Your task to perform on an android device: turn notification dots on Image 0: 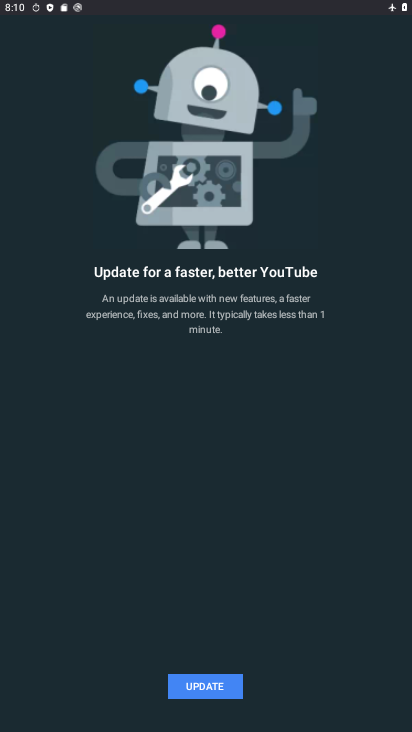
Step 0: press back button
Your task to perform on an android device: turn notification dots on Image 1: 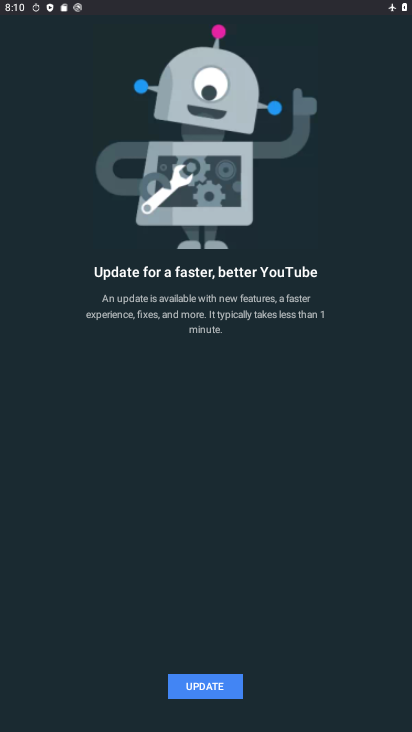
Step 1: press back button
Your task to perform on an android device: turn notification dots on Image 2: 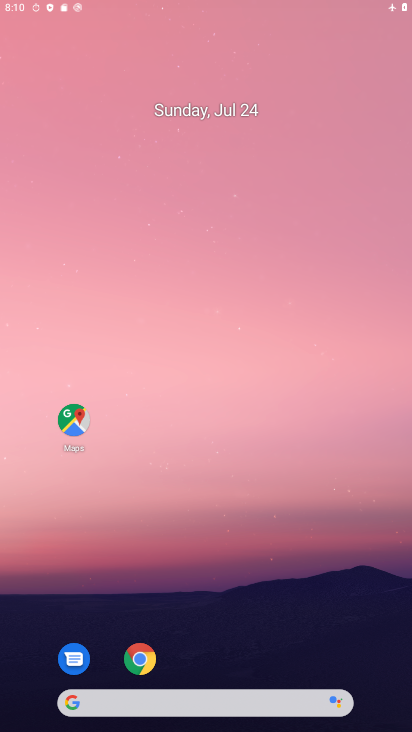
Step 2: press back button
Your task to perform on an android device: turn notification dots on Image 3: 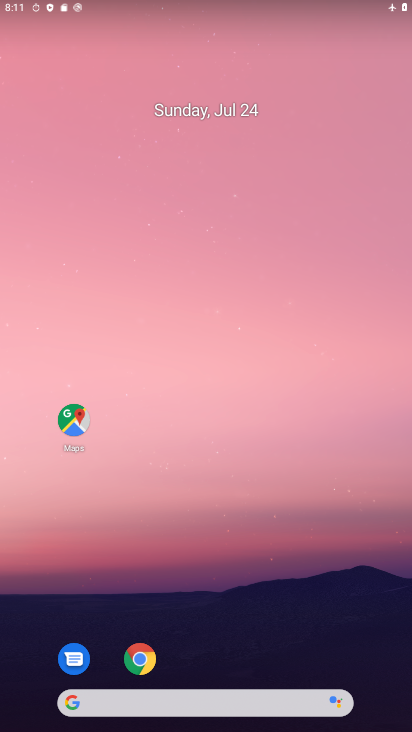
Step 3: drag from (248, 482) to (230, 186)
Your task to perform on an android device: turn notification dots on Image 4: 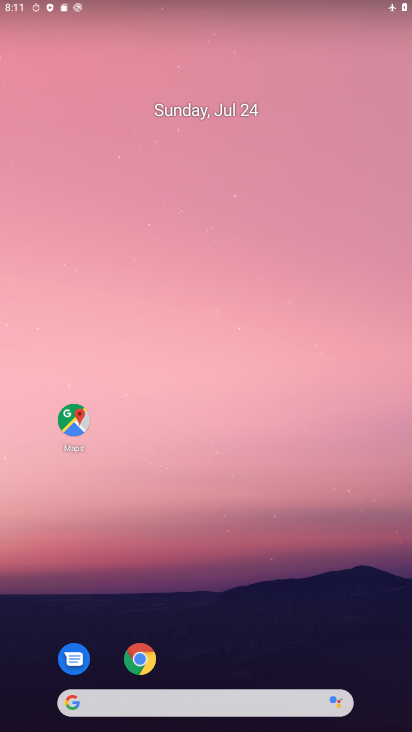
Step 4: drag from (246, 592) to (253, 96)
Your task to perform on an android device: turn notification dots on Image 5: 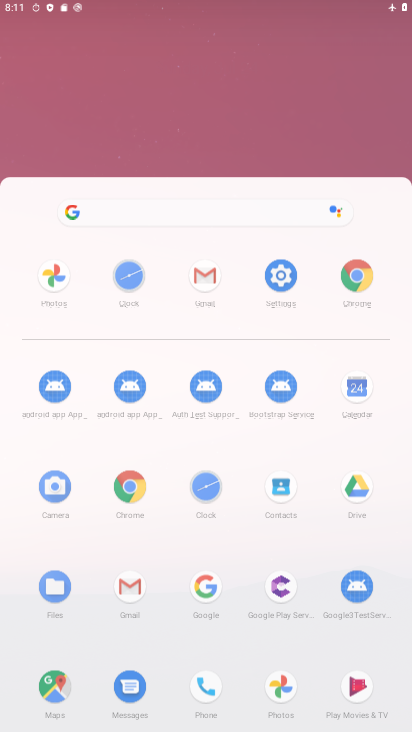
Step 5: drag from (156, 621) to (196, 138)
Your task to perform on an android device: turn notification dots on Image 6: 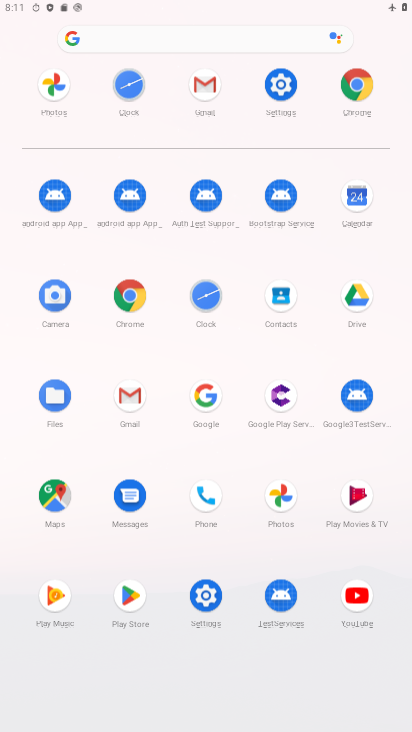
Step 6: drag from (282, 476) to (288, 120)
Your task to perform on an android device: turn notification dots on Image 7: 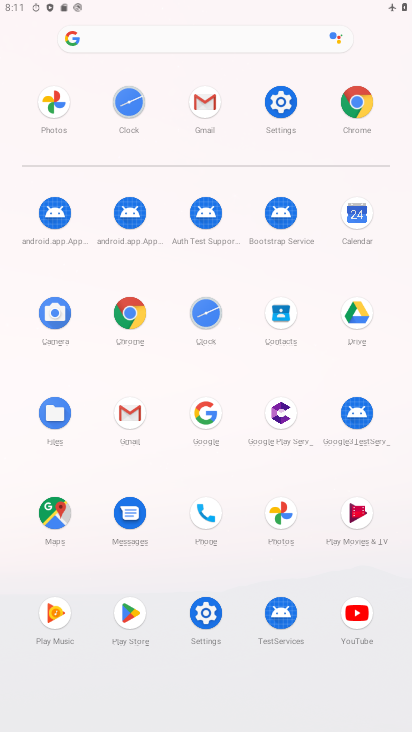
Step 7: click (274, 106)
Your task to perform on an android device: turn notification dots on Image 8: 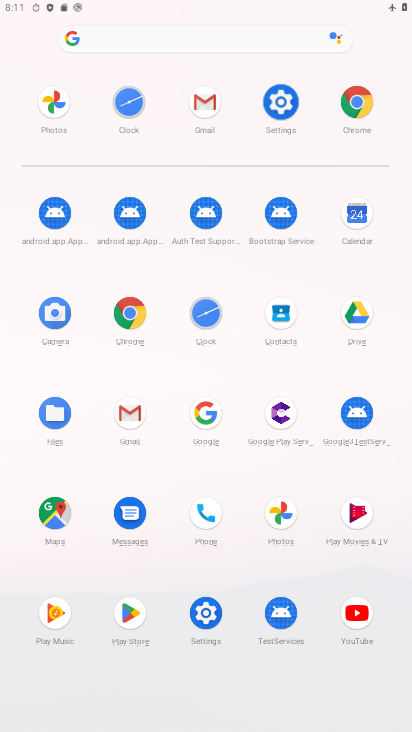
Step 8: click (274, 106)
Your task to perform on an android device: turn notification dots on Image 9: 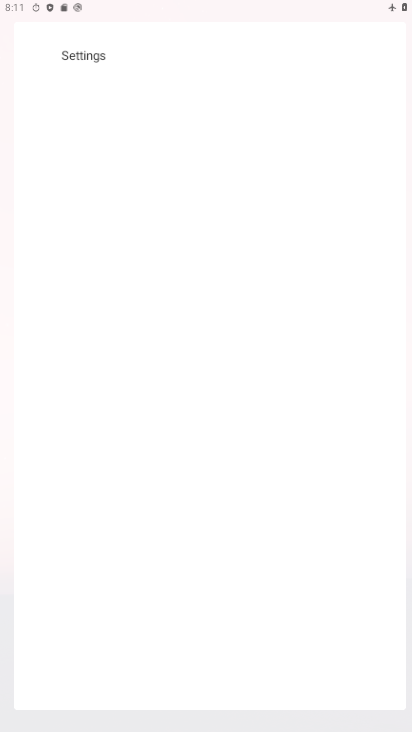
Step 9: click (274, 105)
Your task to perform on an android device: turn notification dots on Image 10: 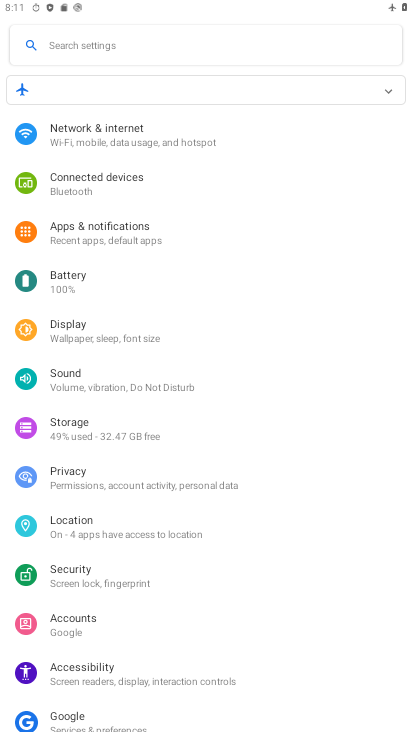
Step 10: click (274, 102)
Your task to perform on an android device: turn notification dots on Image 11: 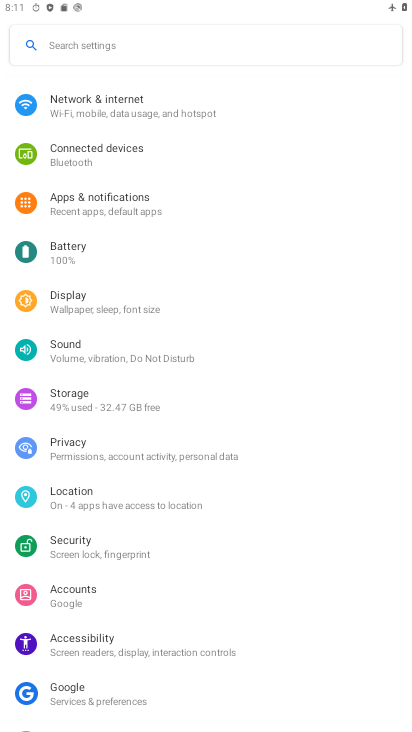
Step 11: click (274, 102)
Your task to perform on an android device: turn notification dots on Image 12: 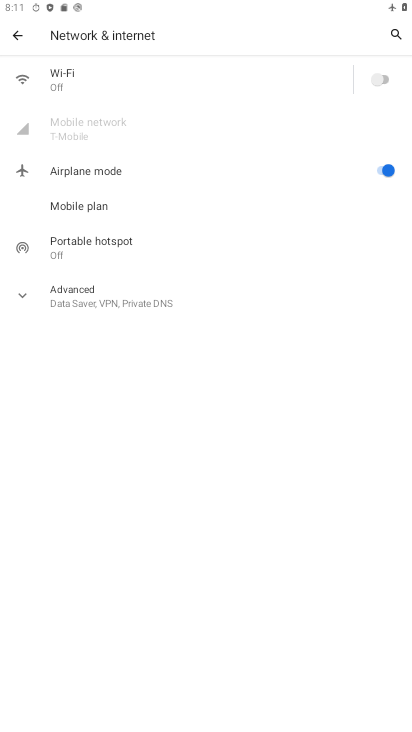
Step 12: click (21, 35)
Your task to perform on an android device: turn notification dots on Image 13: 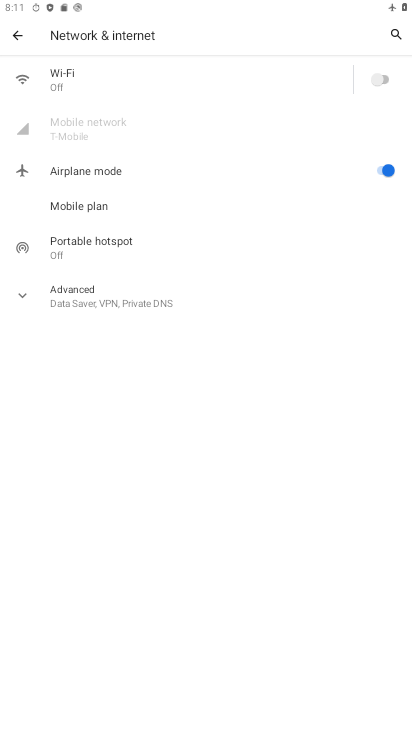
Step 13: click (23, 28)
Your task to perform on an android device: turn notification dots on Image 14: 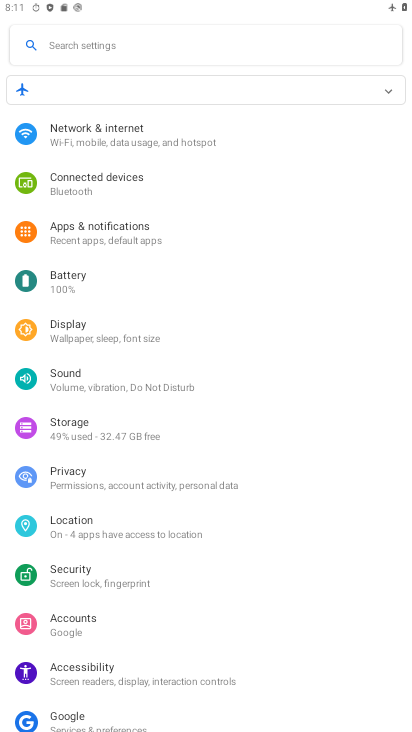
Step 14: click (93, 223)
Your task to perform on an android device: turn notification dots on Image 15: 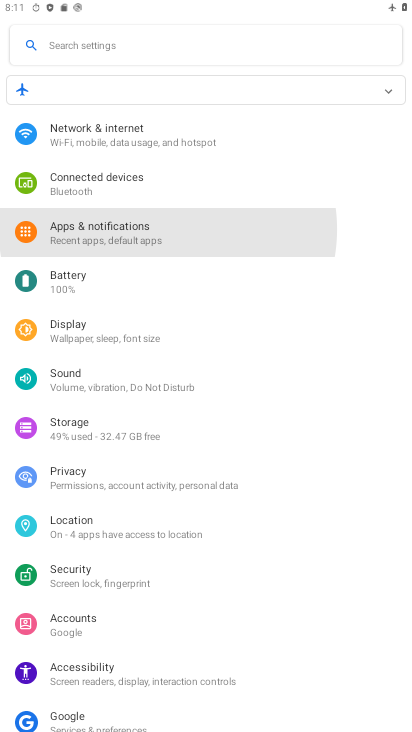
Step 15: click (95, 226)
Your task to perform on an android device: turn notification dots on Image 16: 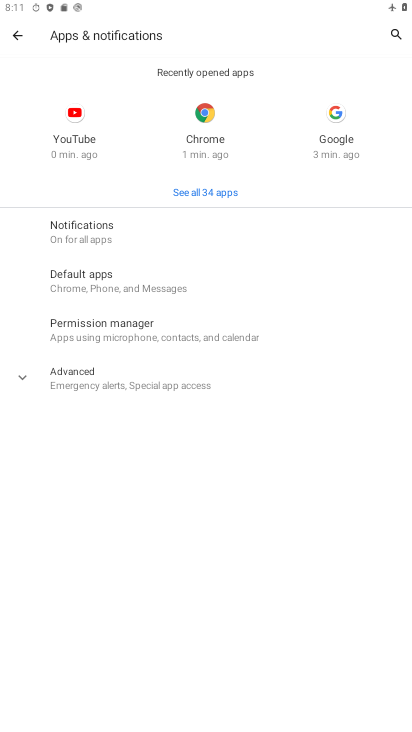
Step 16: click (79, 224)
Your task to perform on an android device: turn notification dots on Image 17: 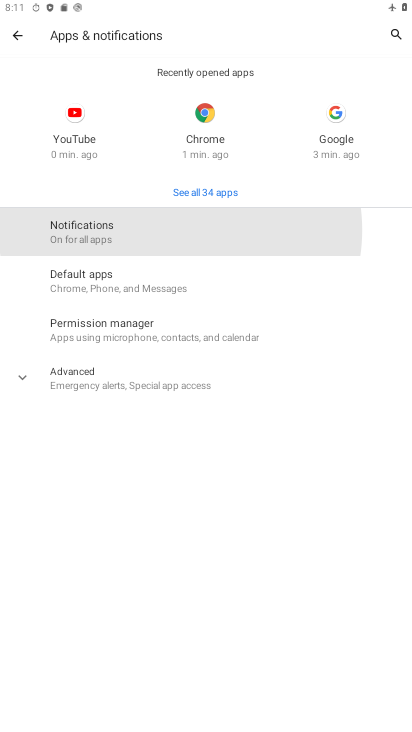
Step 17: click (78, 223)
Your task to perform on an android device: turn notification dots on Image 18: 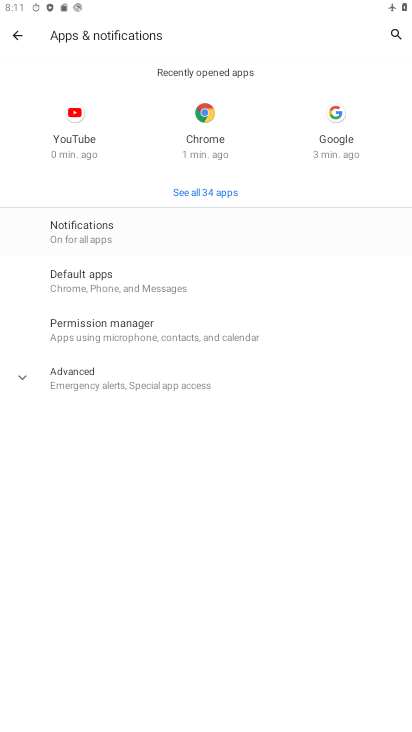
Step 18: click (77, 222)
Your task to perform on an android device: turn notification dots on Image 19: 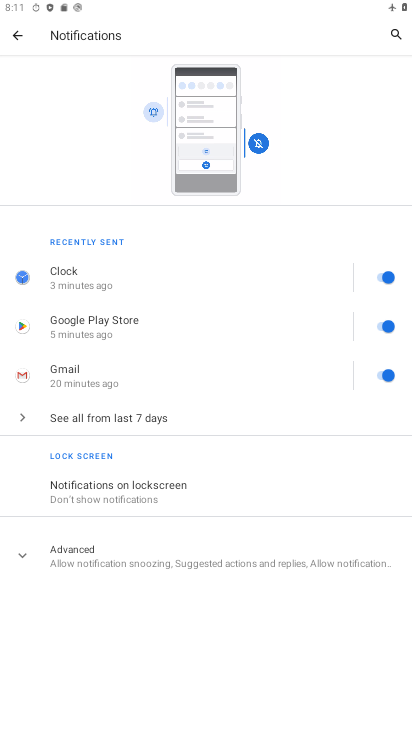
Step 19: click (71, 560)
Your task to perform on an android device: turn notification dots on Image 20: 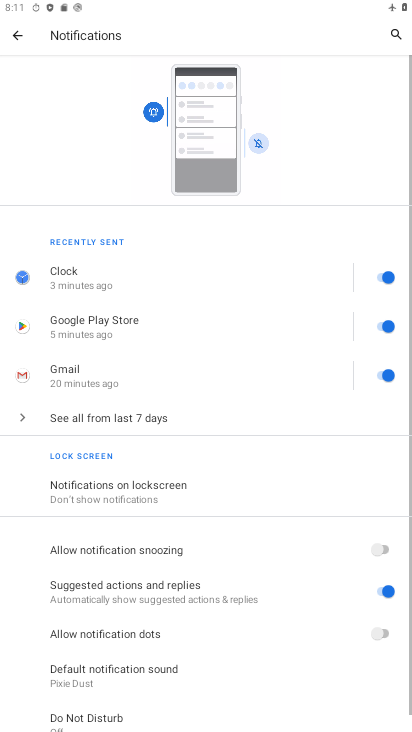
Step 20: drag from (165, 626) to (163, 289)
Your task to perform on an android device: turn notification dots on Image 21: 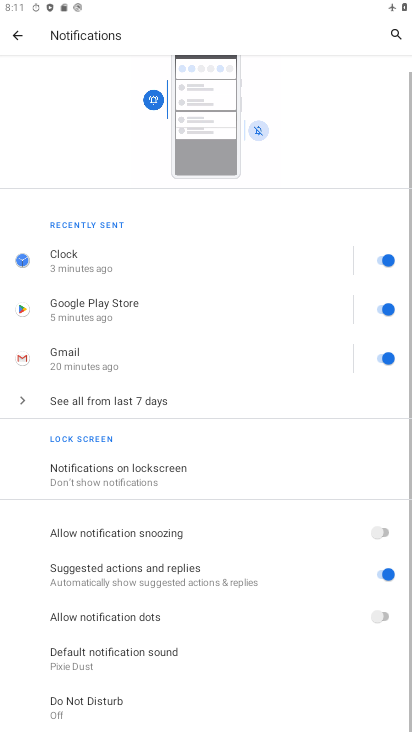
Step 21: drag from (223, 589) to (233, 378)
Your task to perform on an android device: turn notification dots on Image 22: 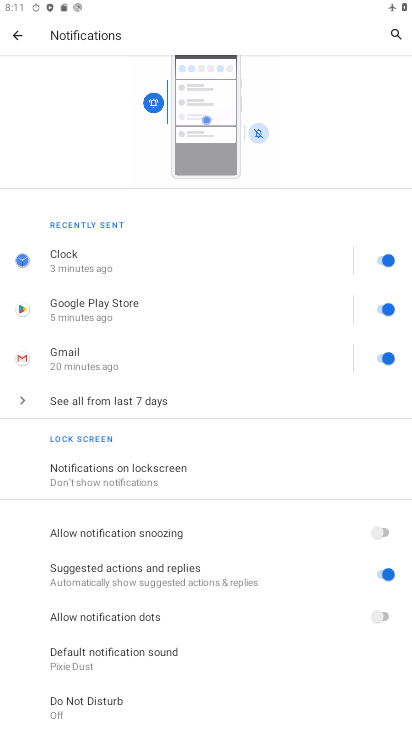
Step 22: click (374, 615)
Your task to perform on an android device: turn notification dots on Image 23: 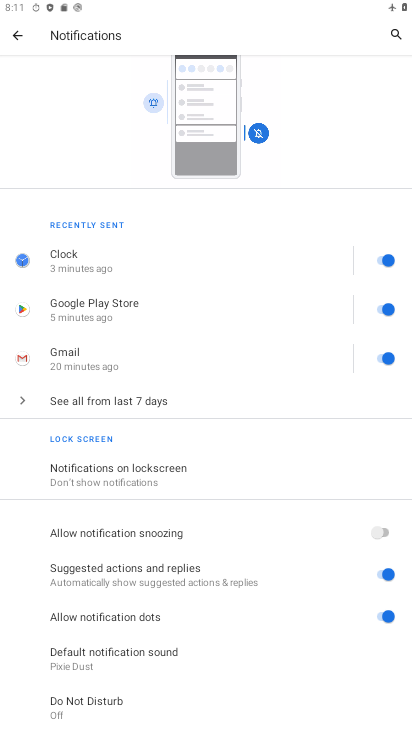
Step 23: task complete